Your task to perform on an android device: allow notifications from all sites in the chrome app Image 0: 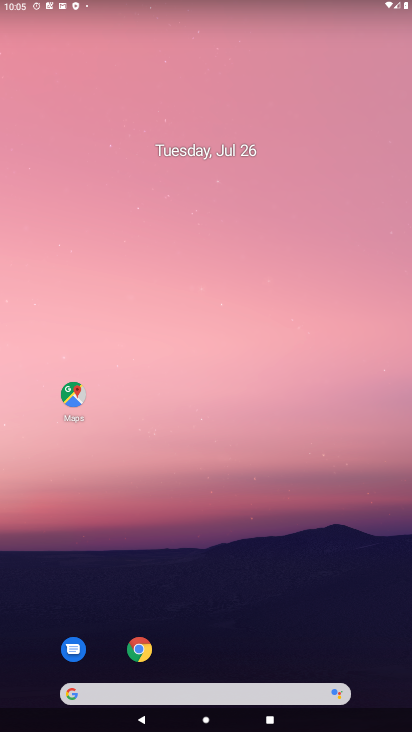
Step 0: drag from (212, 582) to (235, 112)
Your task to perform on an android device: allow notifications from all sites in the chrome app Image 1: 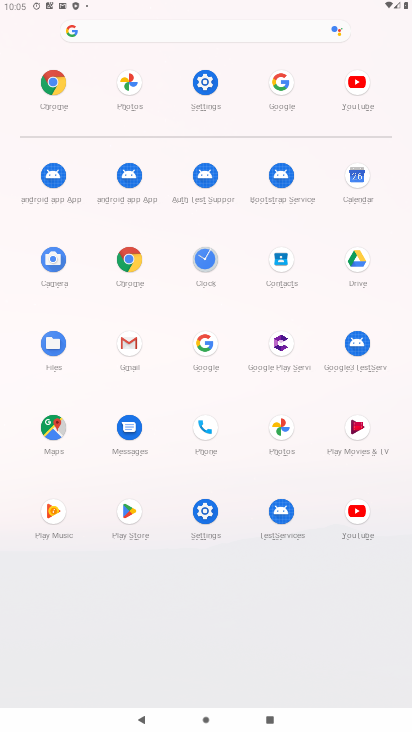
Step 1: click (127, 254)
Your task to perform on an android device: allow notifications from all sites in the chrome app Image 2: 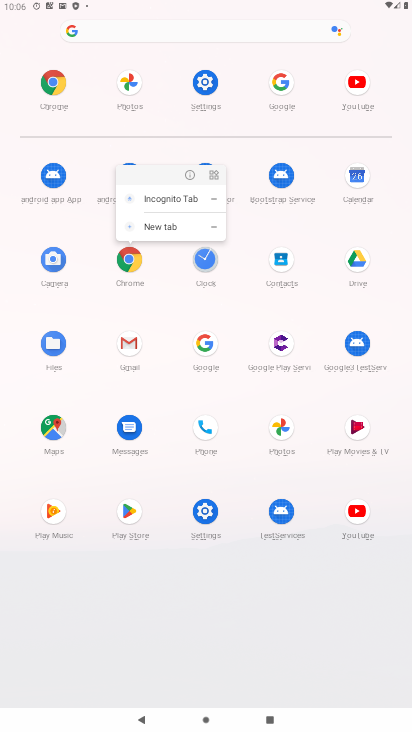
Step 2: click (190, 178)
Your task to perform on an android device: allow notifications from all sites in the chrome app Image 3: 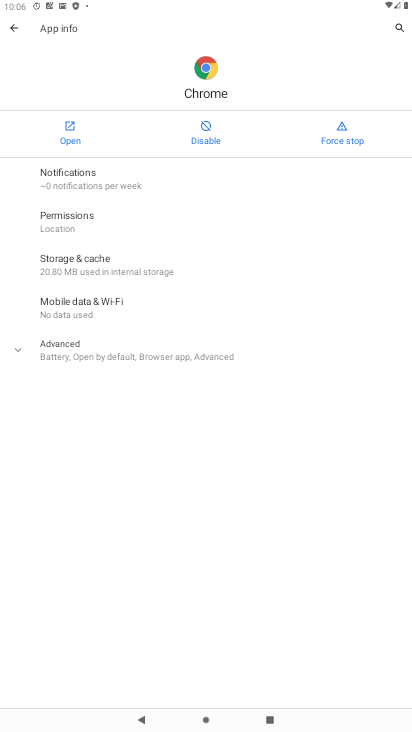
Step 3: click (64, 127)
Your task to perform on an android device: allow notifications from all sites in the chrome app Image 4: 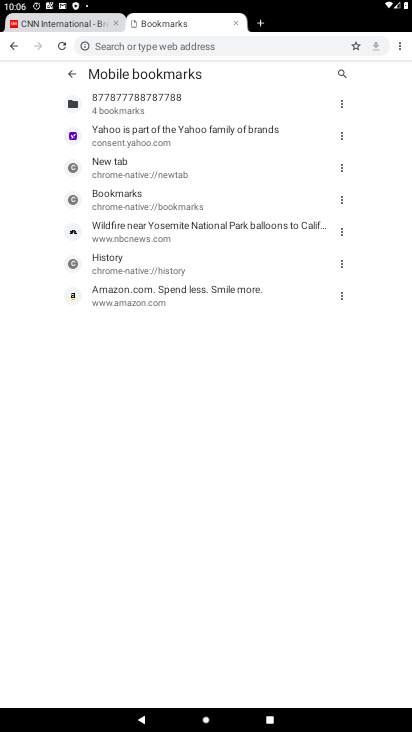
Step 4: drag from (400, 46) to (320, 215)
Your task to perform on an android device: allow notifications from all sites in the chrome app Image 5: 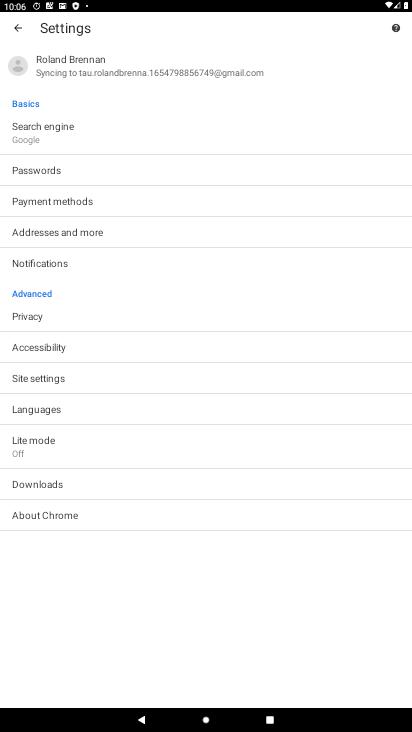
Step 5: click (54, 371)
Your task to perform on an android device: allow notifications from all sites in the chrome app Image 6: 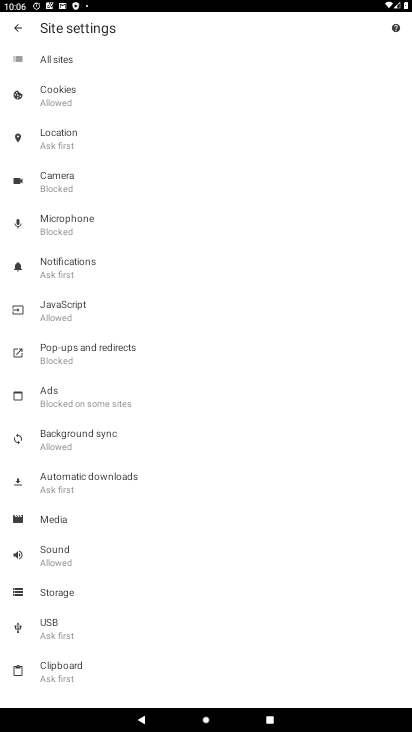
Step 6: click (58, 277)
Your task to perform on an android device: allow notifications from all sites in the chrome app Image 7: 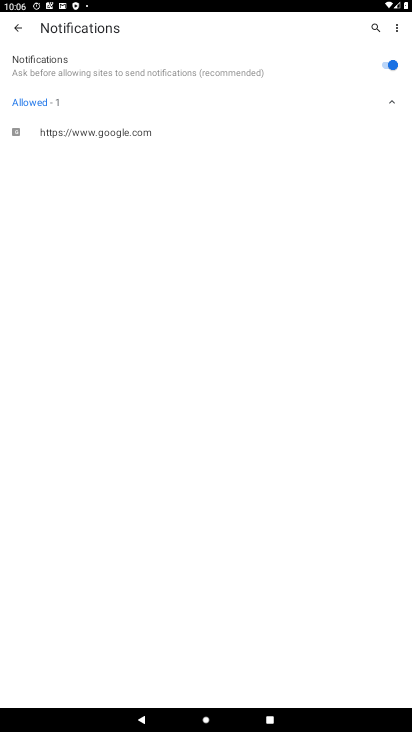
Step 7: task complete